Your task to perform on an android device: star an email in the gmail app Image 0: 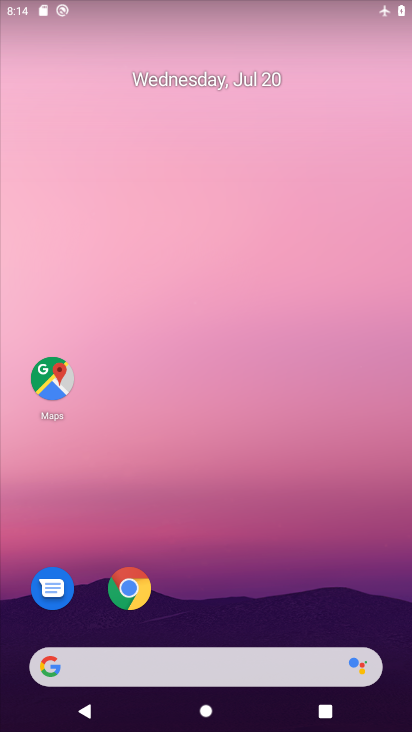
Step 0: press home button
Your task to perform on an android device: star an email in the gmail app Image 1: 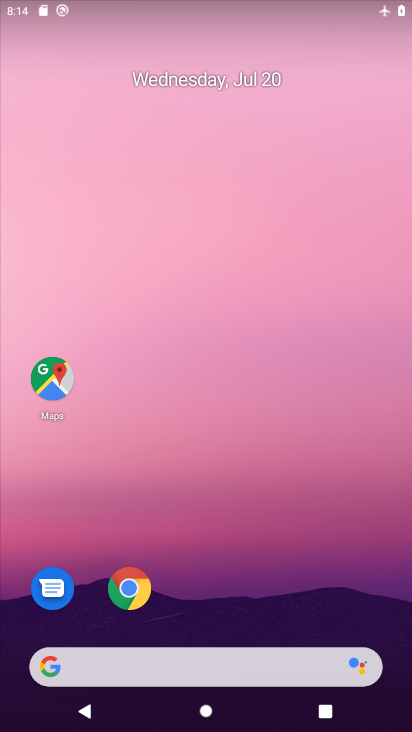
Step 1: drag from (209, 635) to (236, 18)
Your task to perform on an android device: star an email in the gmail app Image 2: 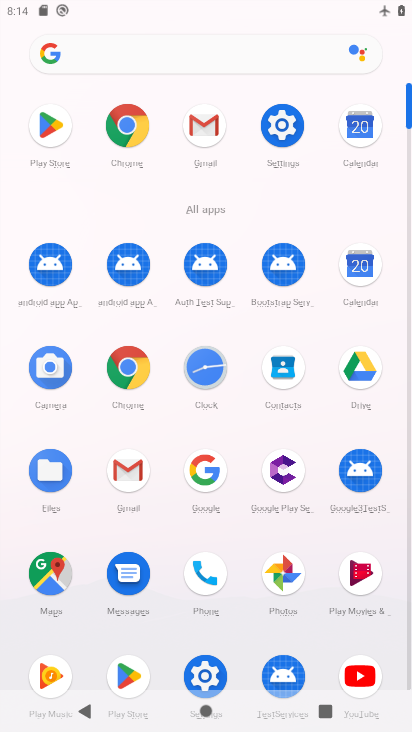
Step 2: click (203, 116)
Your task to perform on an android device: star an email in the gmail app Image 3: 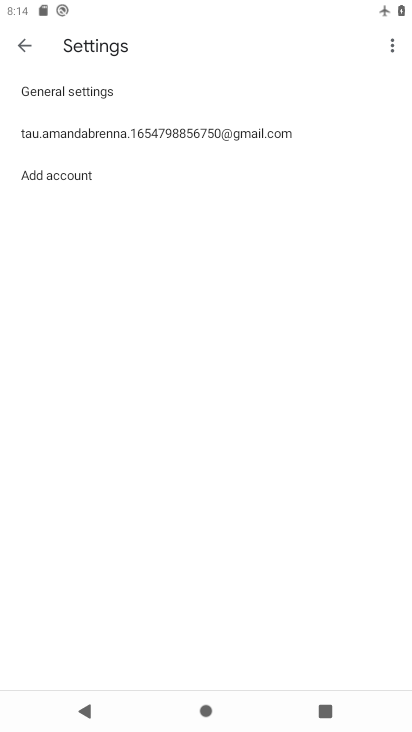
Step 3: click (27, 45)
Your task to perform on an android device: star an email in the gmail app Image 4: 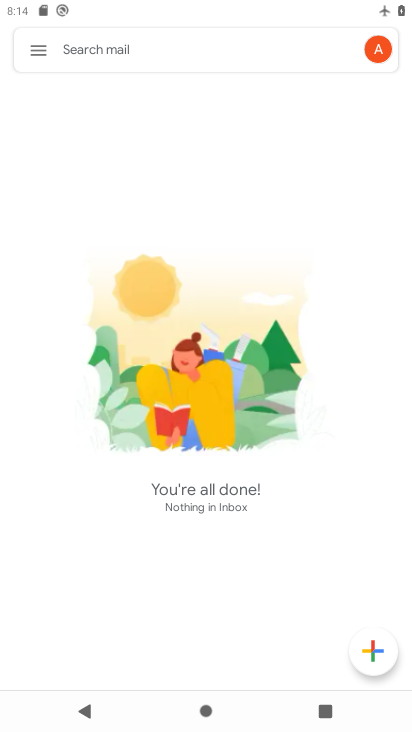
Step 4: task complete